Your task to perform on an android device: Search for Mexican restaurants on Maps Image 0: 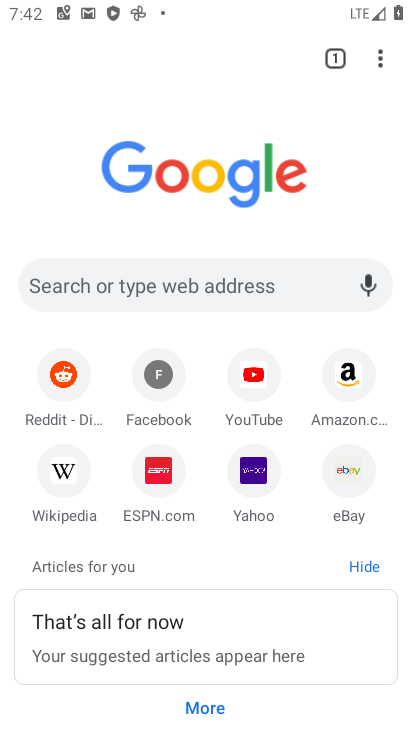
Step 0: press home button
Your task to perform on an android device: Search for Mexican restaurants on Maps Image 1: 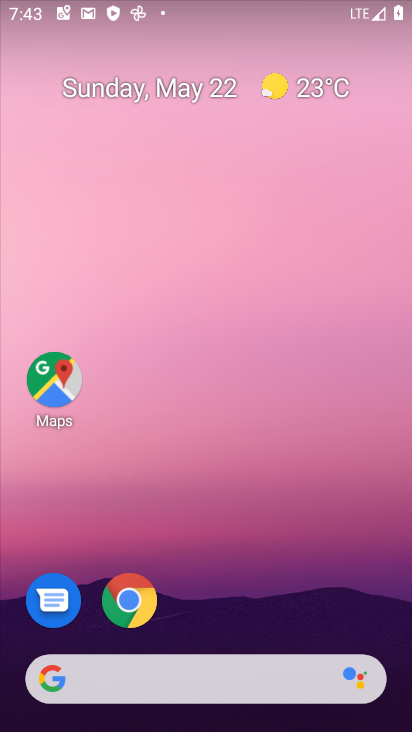
Step 1: drag from (316, 611) to (243, 13)
Your task to perform on an android device: Search for Mexican restaurants on Maps Image 2: 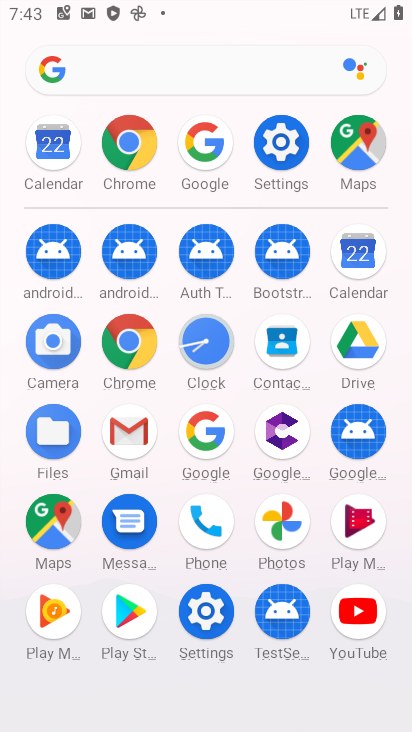
Step 2: click (348, 144)
Your task to perform on an android device: Search for Mexican restaurants on Maps Image 3: 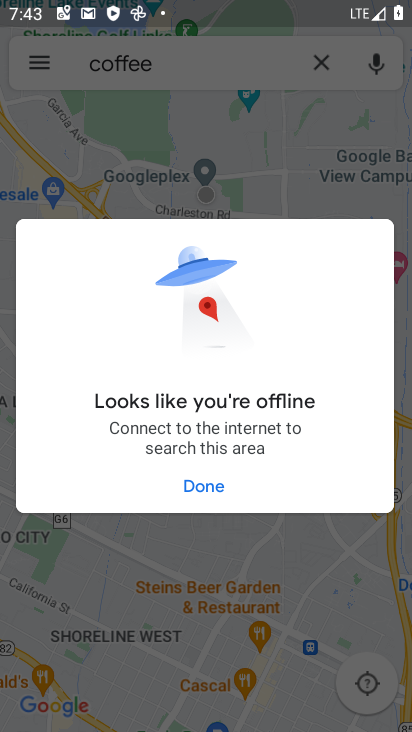
Step 3: press back button
Your task to perform on an android device: Search for Mexican restaurants on Maps Image 4: 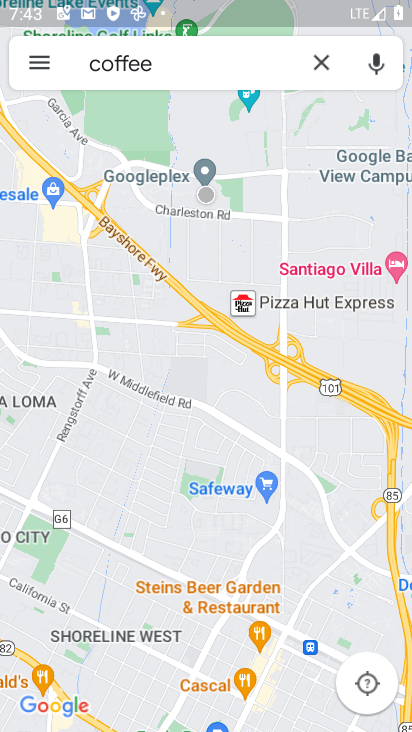
Step 4: click (338, 62)
Your task to perform on an android device: Search for Mexican restaurants on Maps Image 5: 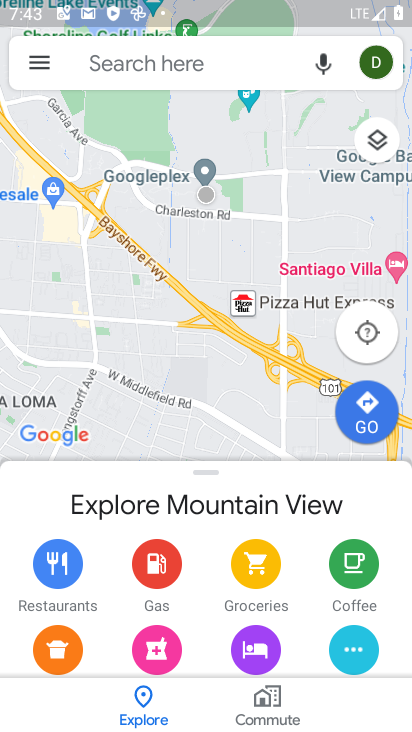
Step 5: click (205, 54)
Your task to perform on an android device: Search for Mexican restaurants on Maps Image 6: 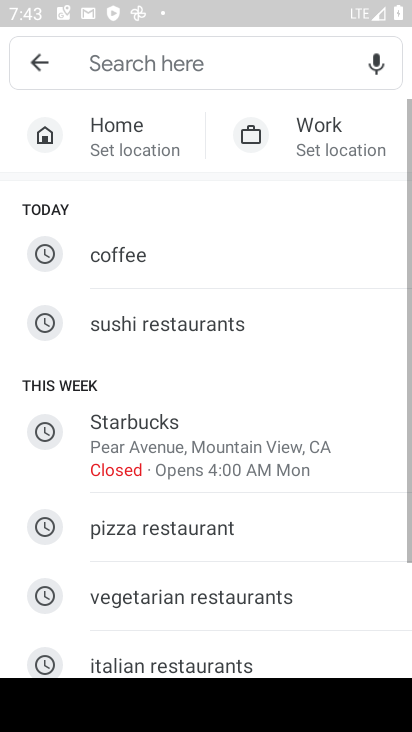
Step 6: drag from (182, 634) to (178, 130)
Your task to perform on an android device: Search for Mexican restaurants on Maps Image 7: 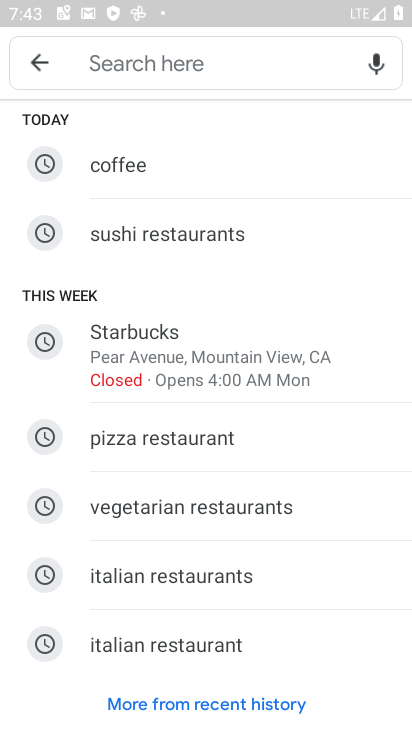
Step 7: click (100, 58)
Your task to perform on an android device: Search for Mexican restaurants on Maps Image 8: 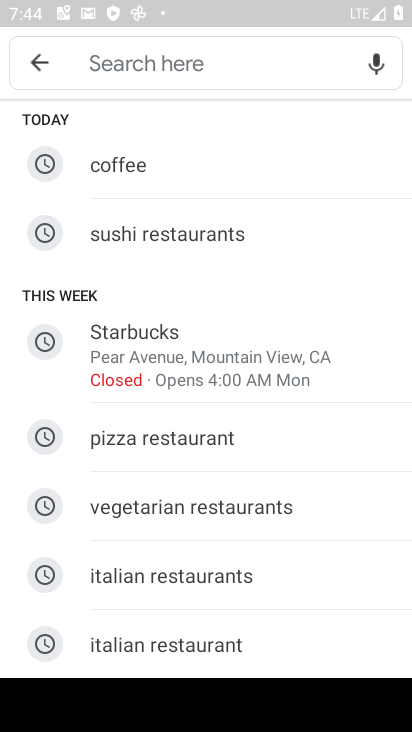
Step 8: type "mexican restaurants"
Your task to perform on an android device: Search for Mexican restaurants on Maps Image 9: 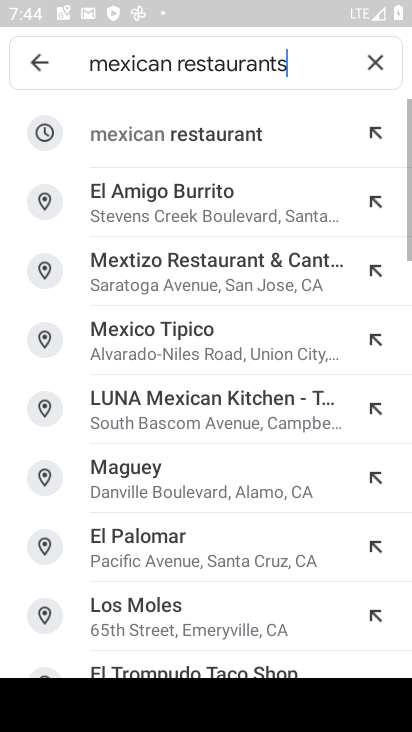
Step 9: click (246, 149)
Your task to perform on an android device: Search for Mexican restaurants on Maps Image 10: 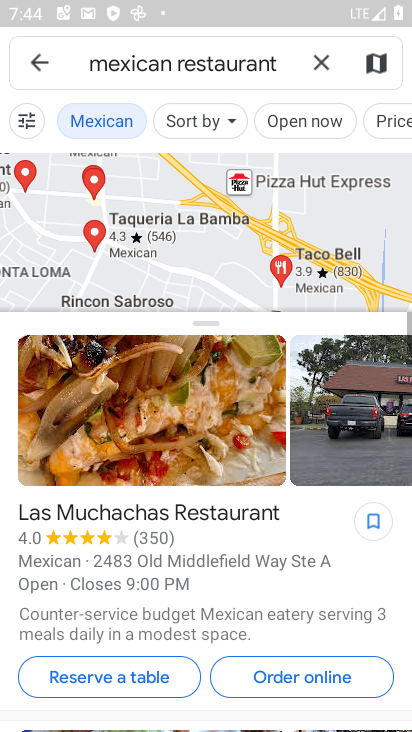
Step 10: task complete